Your task to perform on an android device: delete a single message in the gmail app Image 0: 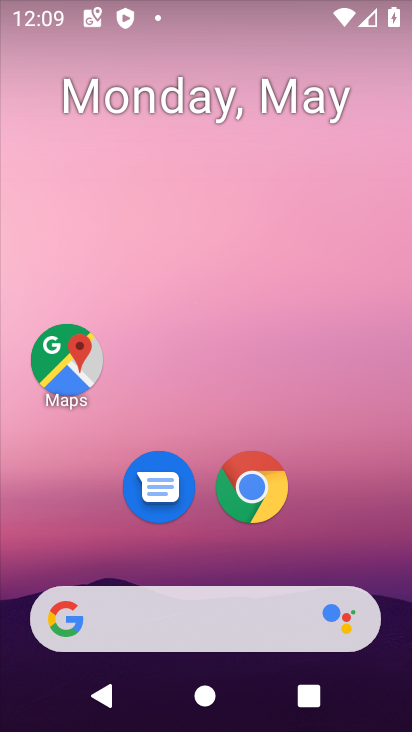
Step 0: drag from (335, 565) to (283, 10)
Your task to perform on an android device: delete a single message in the gmail app Image 1: 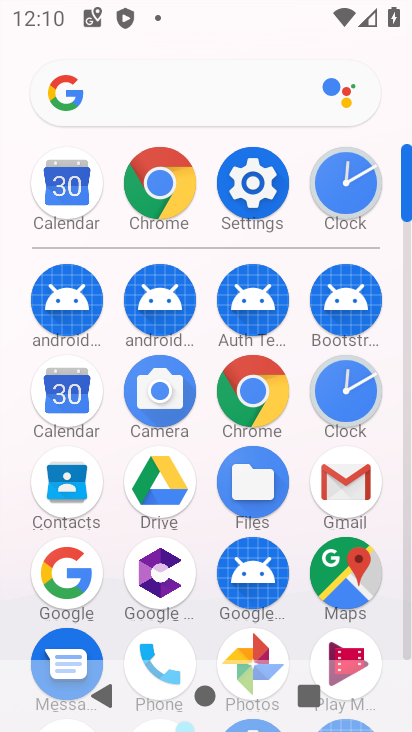
Step 1: click (352, 495)
Your task to perform on an android device: delete a single message in the gmail app Image 2: 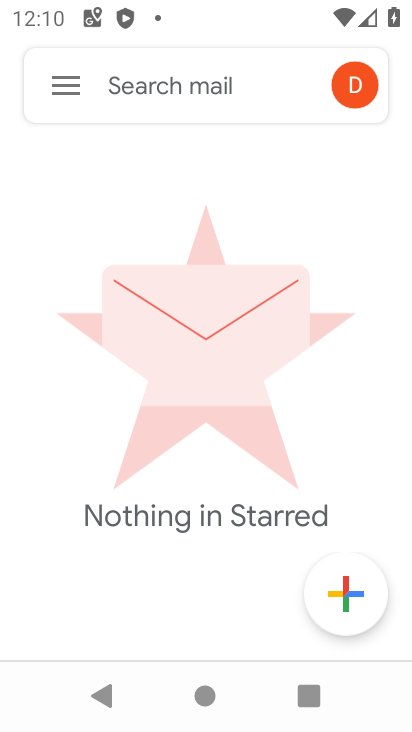
Step 2: click (71, 80)
Your task to perform on an android device: delete a single message in the gmail app Image 3: 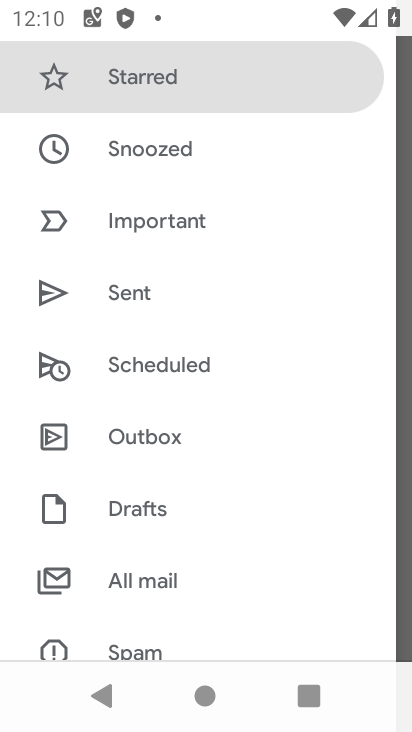
Step 3: click (143, 591)
Your task to perform on an android device: delete a single message in the gmail app Image 4: 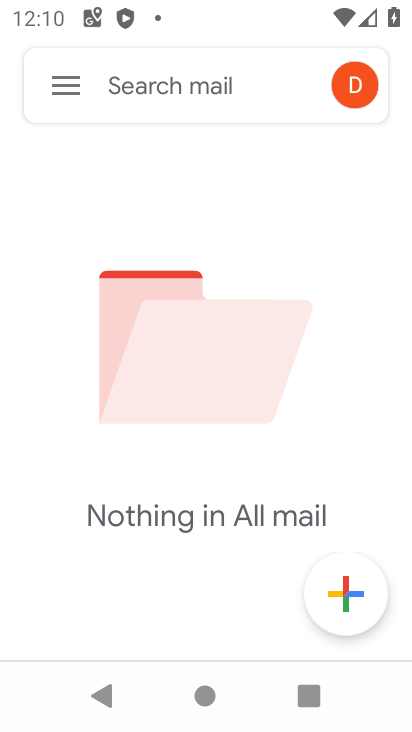
Step 4: task complete